Your task to perform on an android device: set an alarm Image 0: 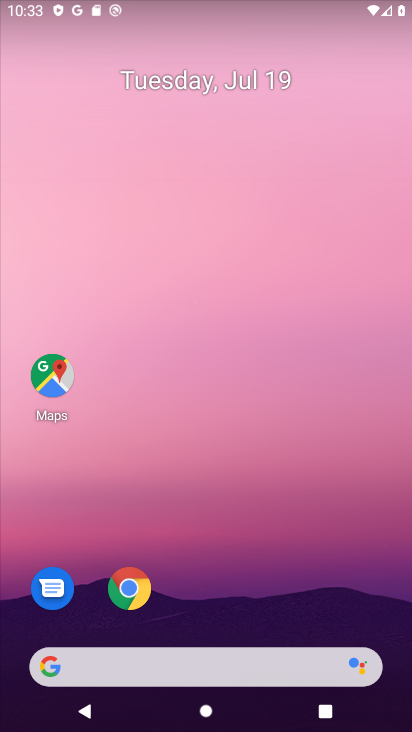
Step 0: drag from (385, 619) to (338, 122)
Your task to perform on an android device: set an alarm Image 1: 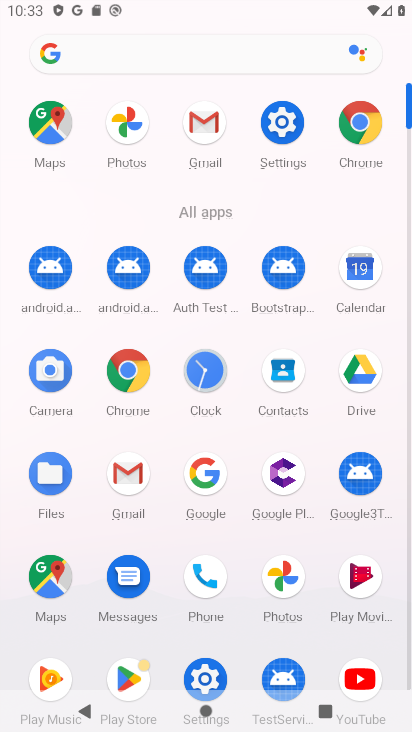
Step 1: click (202, 372)
Your task to perform on an android device: set an alarm Image 2: 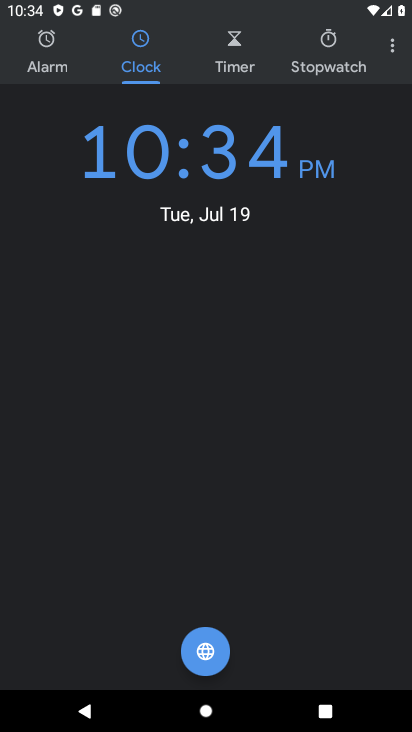
Step 2: click (56, 44)
Your task to perform on an android device: set an alarm Image 3: 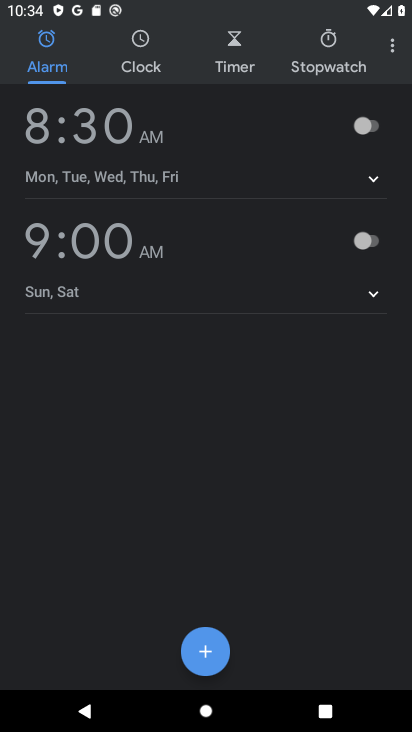
Step 3: click (95, 124)
Your task to perform on an android device: set an alarm Image 4: 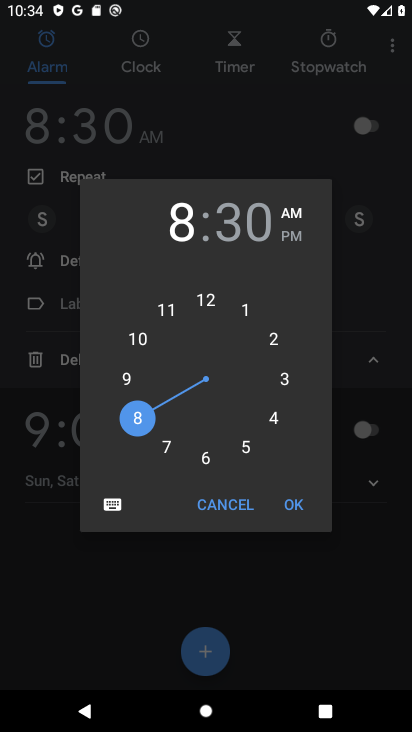
Step 4: click (203, 452)
Your task to perform on an android device: set an alarm Image 5: 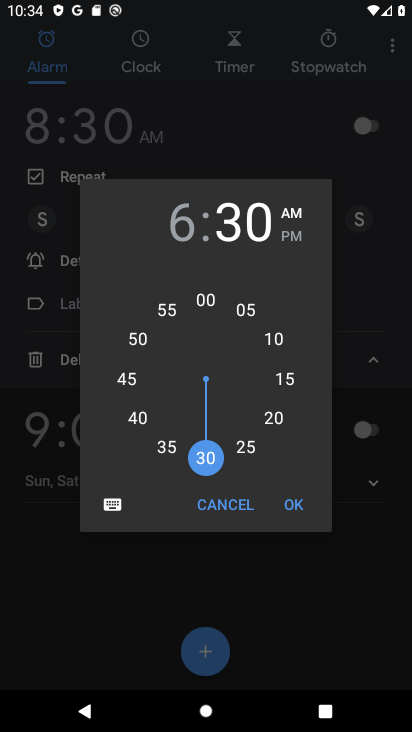
Step 5: click (291, 505)
Your task to perform on an android device: set an alarm Image 6: 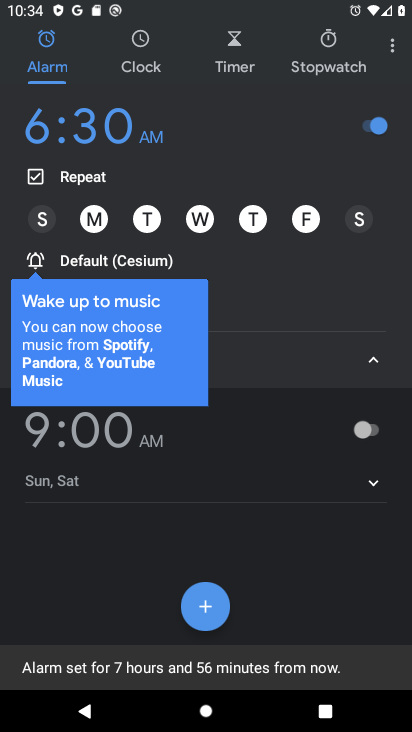
Step 6: click (364, 214)
Your task to perform on an android device: set an alarm Image 7: 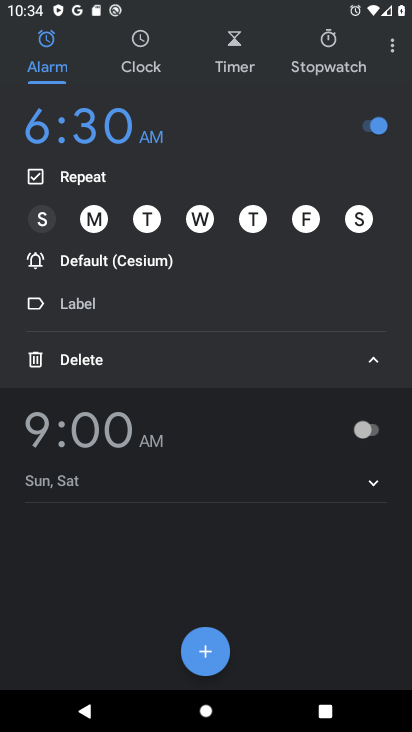
Step 7: click (376, 371)
Your task to perform on an android device: set an alarm Image 8: 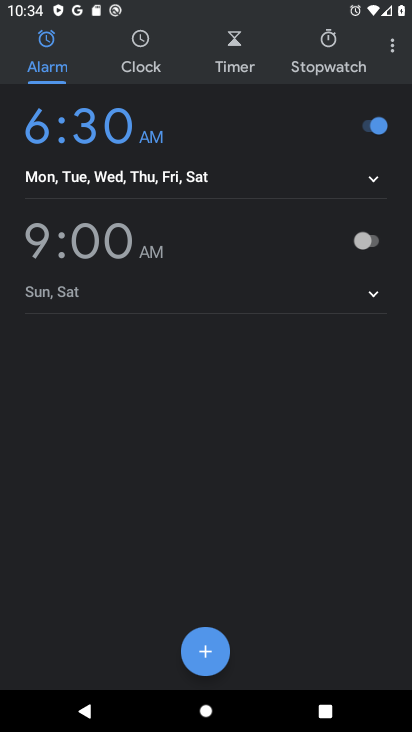
Step 8: task complete